Your task to perform on an android device: refresh tabs in the chrome app Image 0: 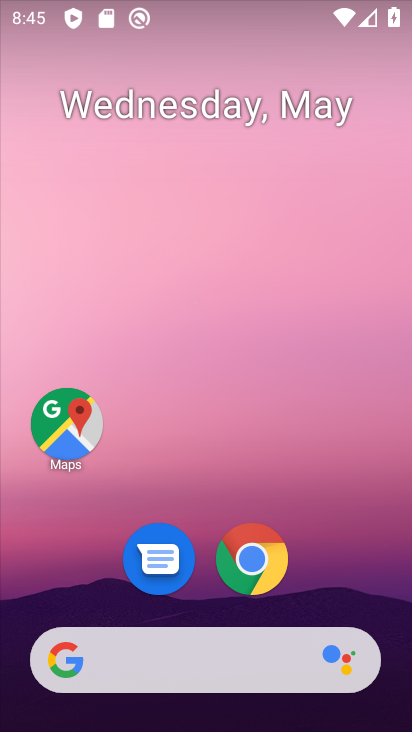
Step 0: click (245, 571)
Your task to perform on an android device: refresh tabs in the chrome app Image 1: 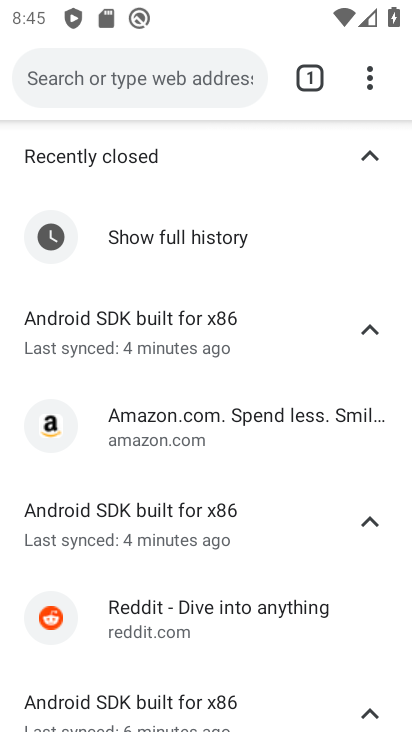
Step 1: click (375, 78)
Your task to perform on an android device: refresh tabs in the chrome app Image 2: 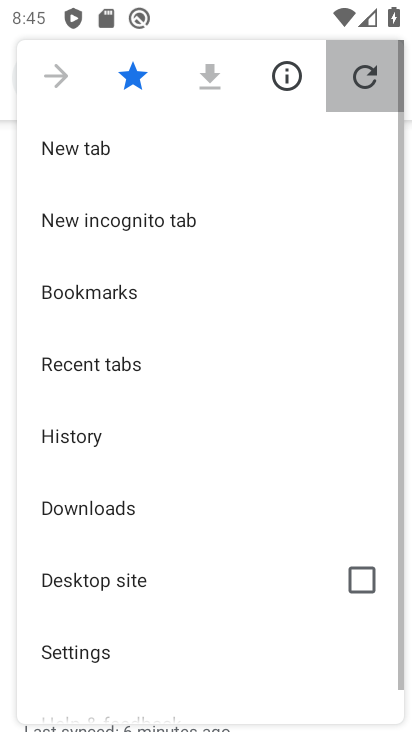
Step 2: click (376, 77)
Your task to perform on an android device: refresh tabs in the chrome app Image 3: 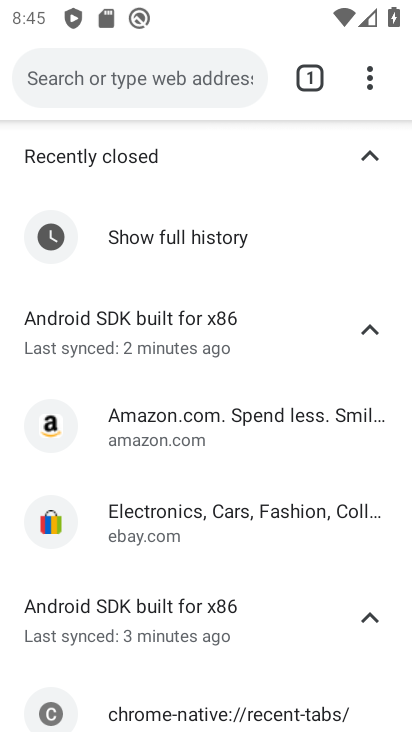
Step 3: task complete